Your task to perform on an android device: empty trash in the gmail app Image 0: 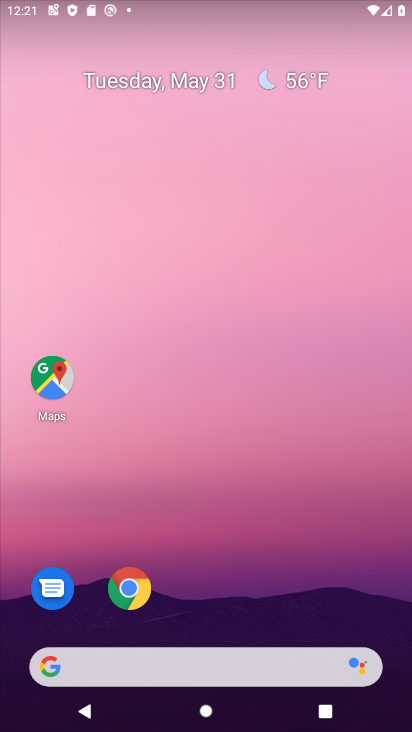
Step 0: drag from (203, 615) to (199, 342)
Your task to perform on an android device: empty trash in the gmail app Image 1: 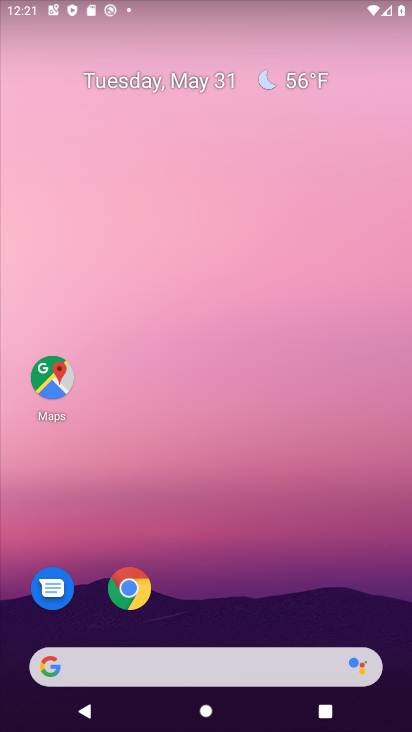
Step 1: drag from (194, 604) to (217, 228)
Your task to perform on an android device: empty trash in the gmail app Image 2: 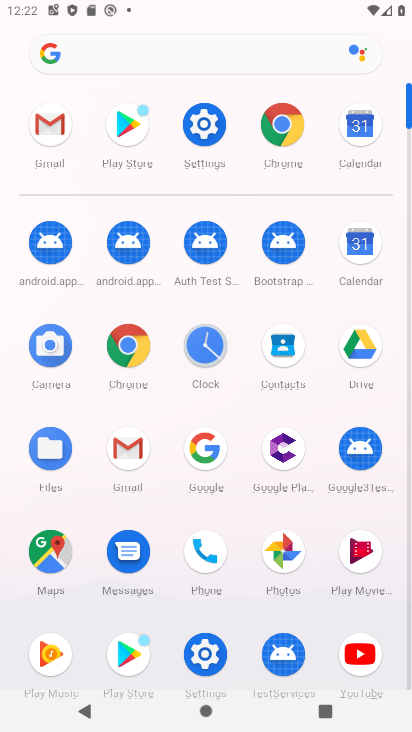
Step 2: click (111, 466)
Your task to perform on an android device: empty trash in the gmail app Image 3: 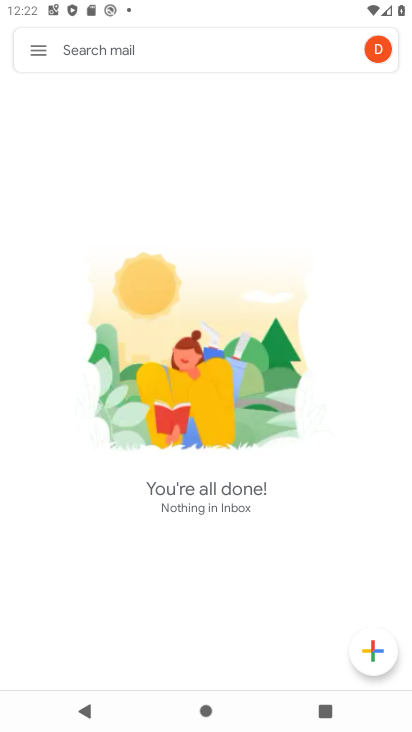
Step 3: click (38, 53)
Your task to perform on an android device: empty trash in the gmail app Image 4: 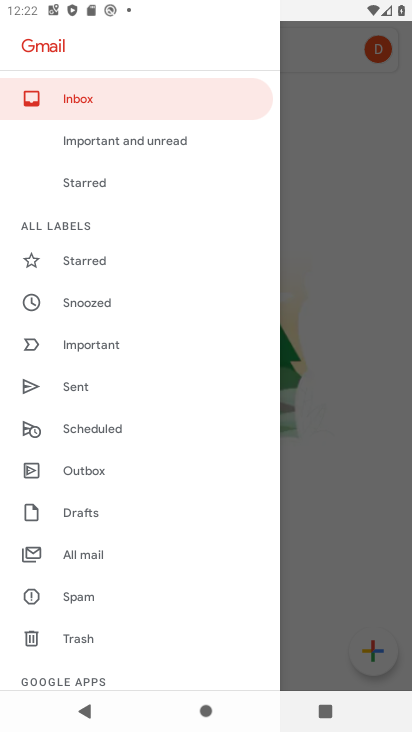
Step 4: click (84, 643)
Your task to perform on an android device: empty trash in the gmail app Image 5: 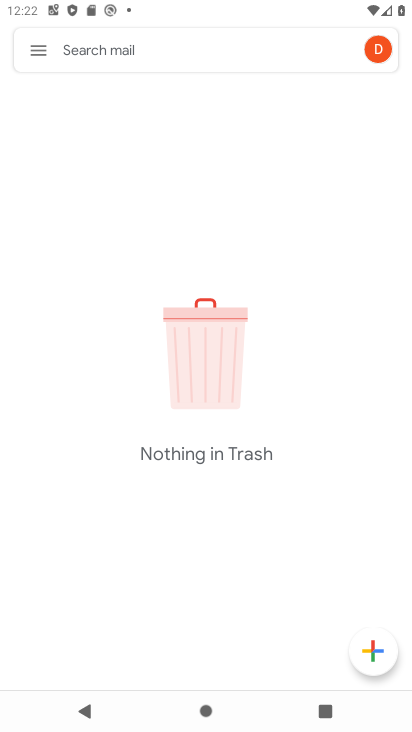
Step 5: task complete